Your task to perform on an android device: Go to Yahoo.com Image 0: 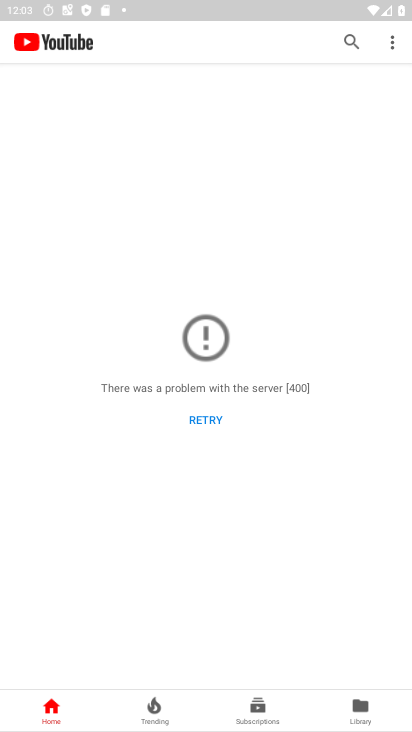
Step 0: press home button
Your task to perform on an android device: Go to Yahoo.com Image 1: 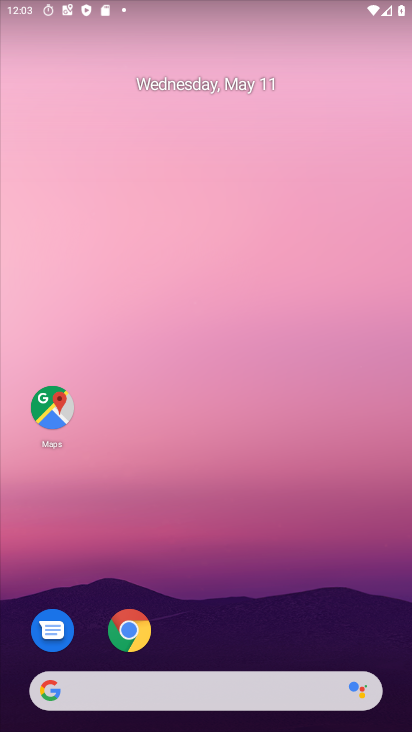
Step 1: drag from (238, 613) to (297, 221)
Your task to perform on an android device: Go to Yahoo.com Image 2: 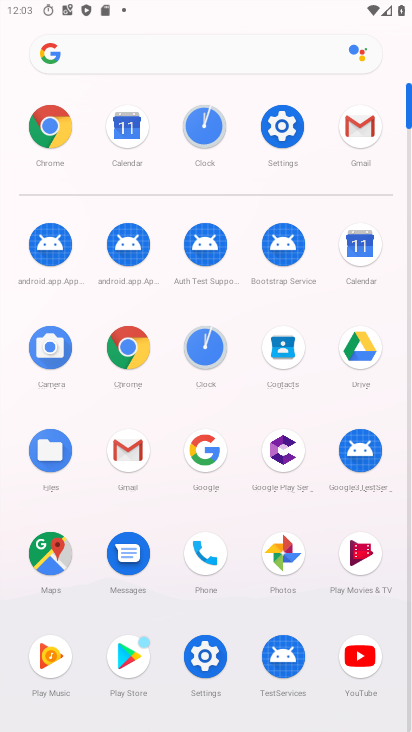
Step 2: click (133, 362)
Your task to perform on an android device: Go to Yahoo.com Image 3: 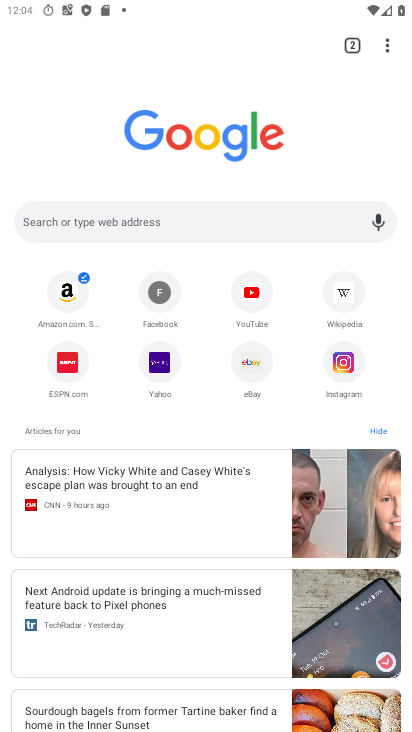
Step 3: click (226, 218)
Your task to perform on an android device: Go to Yahoo.com Image 4: 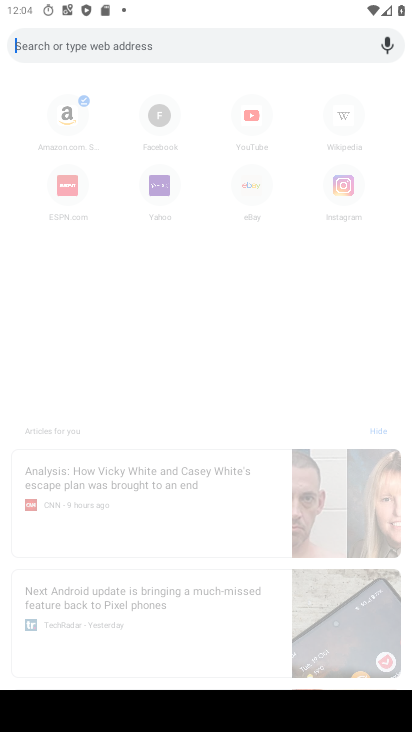
Step 4: type "yahoo.com"
Your task to perform on an android device: Go to Yahoo.com Image 5: 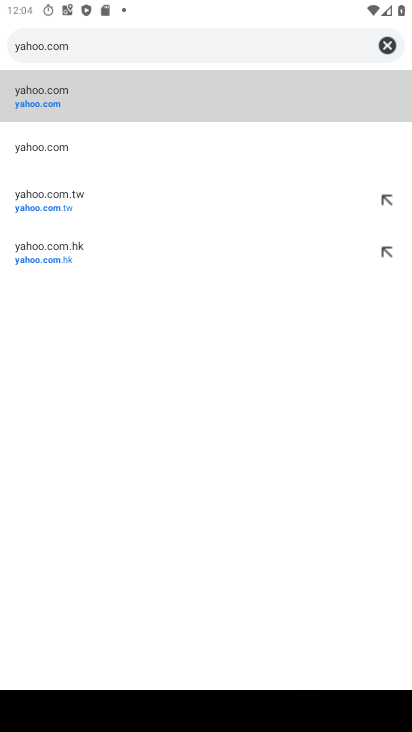
Step 5: click (56, 93)
Your task to perform on an android device: Go to Yahoo.com Image 6: 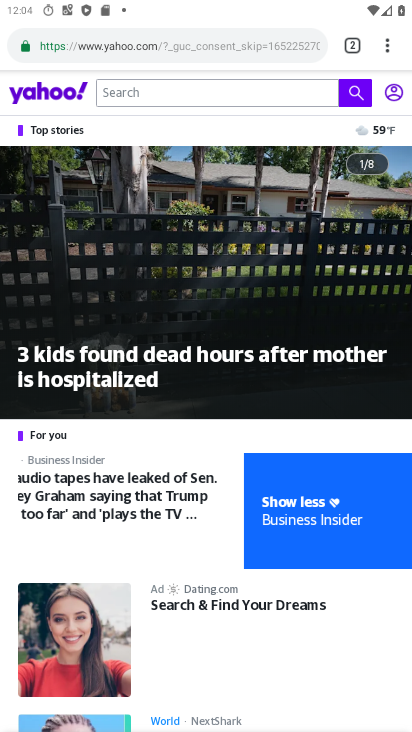
Step 6: task complete